Your task to perform on an android device: Go to ESPN.com Image 0: 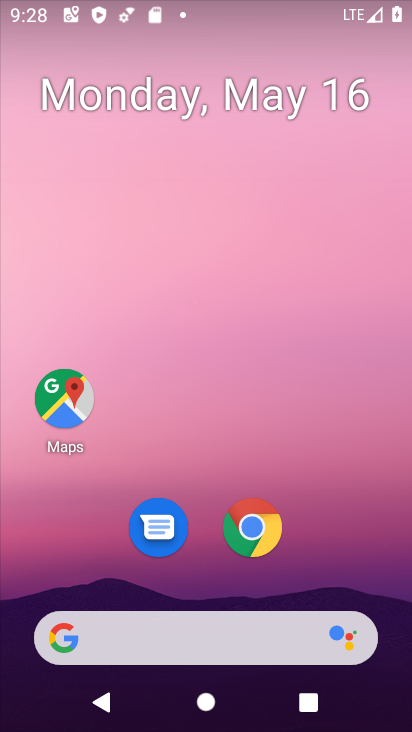
Step 0: click (261, 540)
Your task to perform on an android device: Go to ESPN.com Image 1: 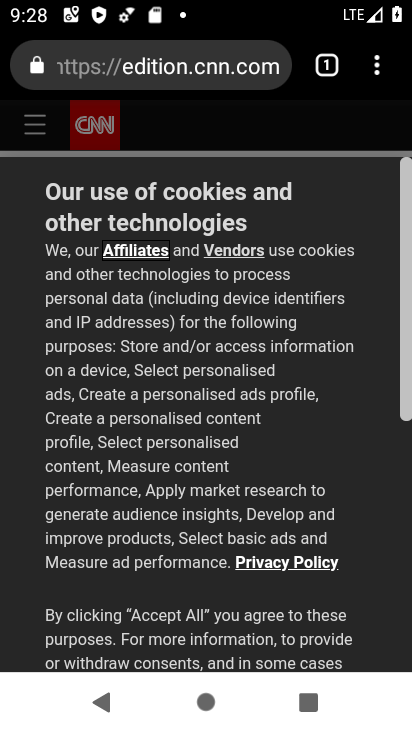
Step 1: click (135, 73)
Your task to perform on an android device: Go to ESPN.com Image 2: 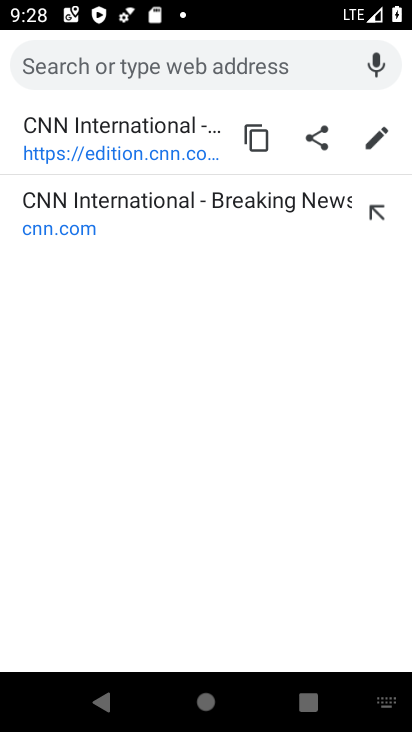
Step 2: type "espn.com"
Your task to perform on an android device: Go to ESPN.com Image 3: 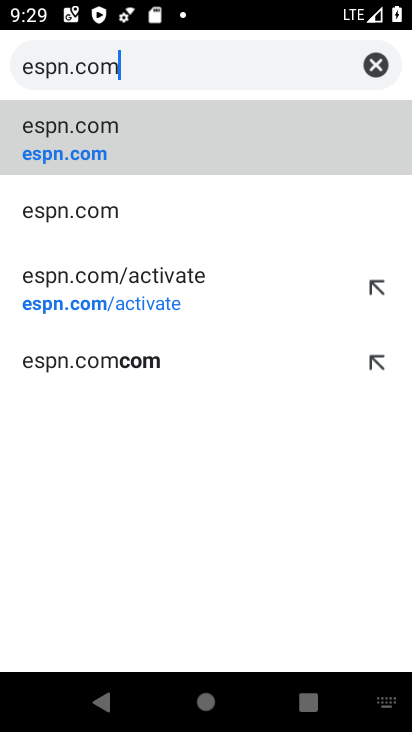
Step 3: click (63, 157)
Your task to perform on an android device: Go to ESPN.com Image 4: 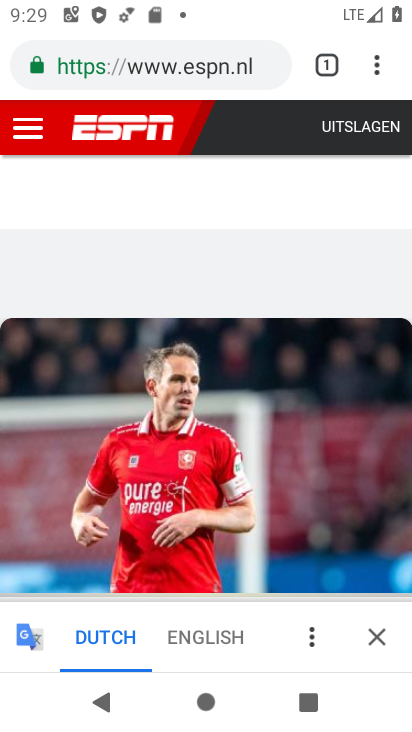
Step 4: task complete